Your task to perform on an android device: Empty the shopping cart on bestbuy. Add "bose quietcomfort 35" to the cart on bestbuy Image 0: 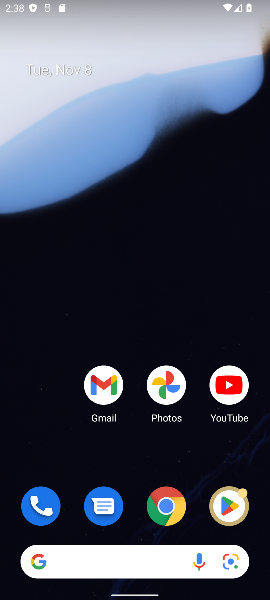
Step 0: drag from (152, 545) to (170, 5)
Your task to perform on an android device: Empty the shopping cart on bestbuy. Add "bose quietcomfort 35" to the cart on bestbuy Image 1: 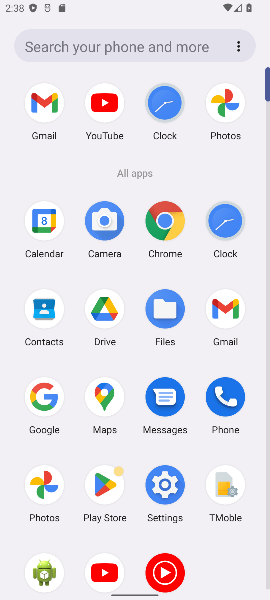
Step 1: click (55, 414)
Your task to perform on an android device: Empty the shopping cart on bestbuy. Add "bose quietcomfort 35" to the cart on bestbuy Image 2: 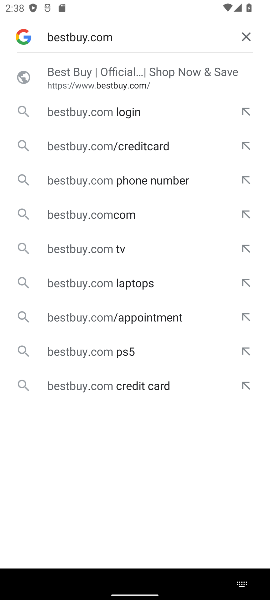
Step 2: click (148, 88)
Your task to perform on an android device: Empty the shopping cart on bestbuy. Add "bose quietcomfort 35" to the cart on bestbuy Image 3: 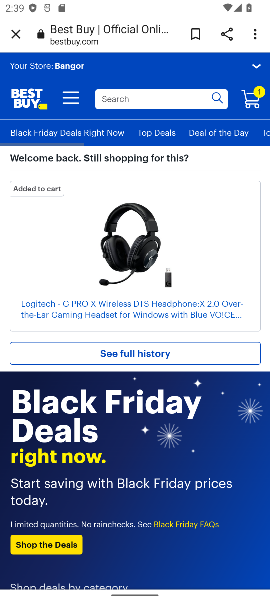
Step 3: click (129, 109)
Your task to perform on an android device: Empty the shopping cart on bestbuy. Add "bose quietcomfort 35" to the cart on bestbuy Image 4: 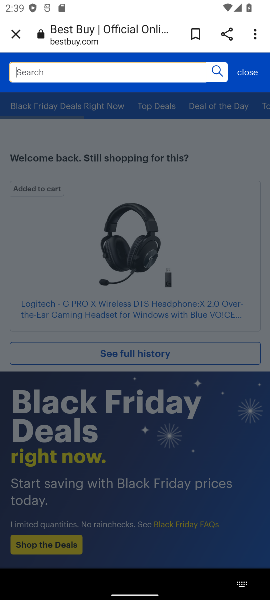
Step 4: type "bose quietcomfort 35"
Your task to perform on an android device: Empty the shopping cart on bestbuy. Add "bose quietcomfort 35" to the cart on bestbuy Image 5: 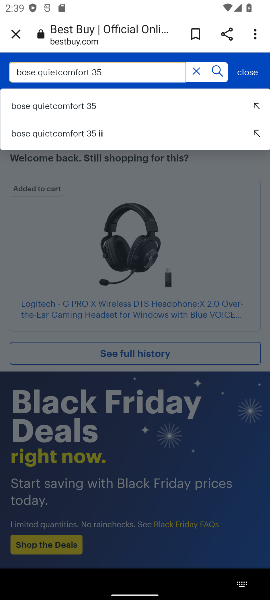
Step 5: click (89, 105)
Your task to perform on an android device: Empty the shopping cart on bestbuy. Add "bose quietcomfort 35" to the cart on bestbuy Image 6: 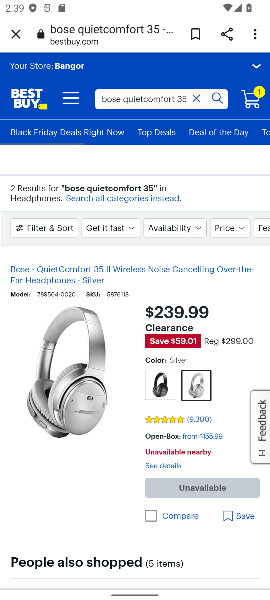
Step 6: task complete